Your task to perform on an android device: open sync settings in chrome Image 0: 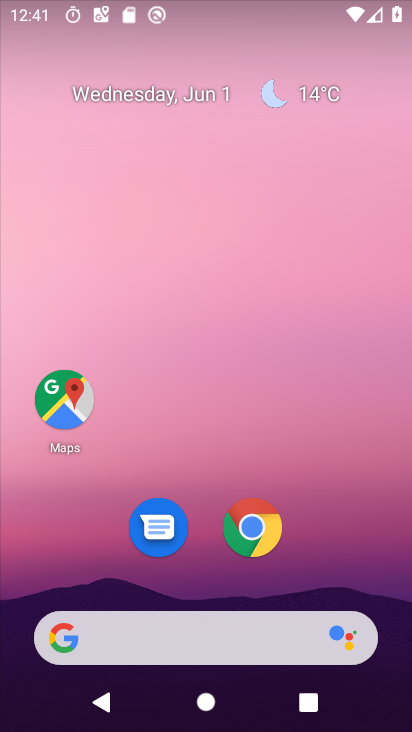
Step 0: click (257, 535)
Your task to perform on an android device: open sync settings in chrome Image 1: 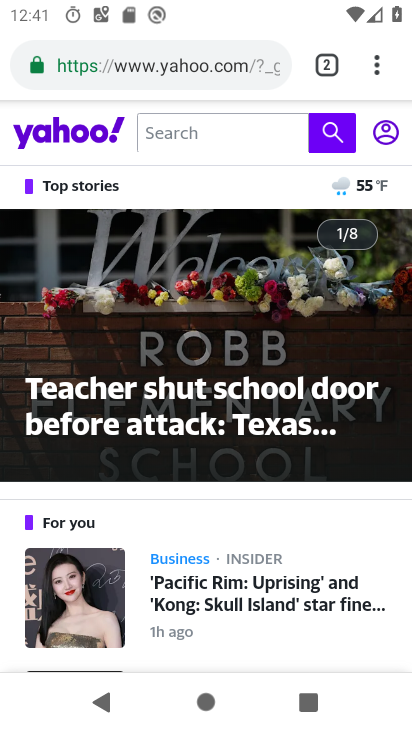
Step 1: click (376, 67)
Your task to perform on an android device: open sync settings in chrome Image 2: 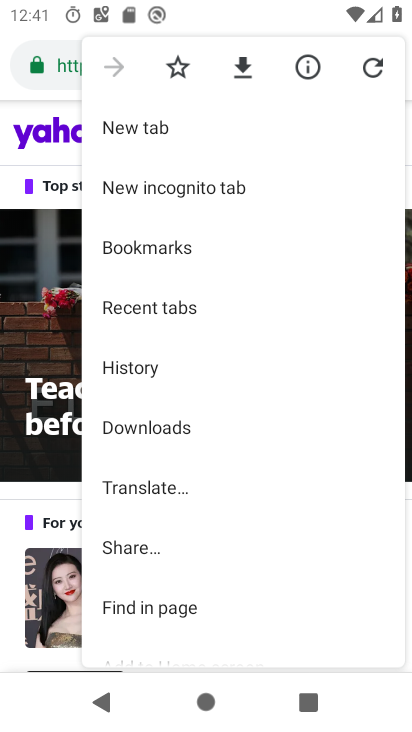
Step 2: drag from (245, 614) to (246, 225)
Your task to perform on an android device: open sync settings in chrome Image 3: 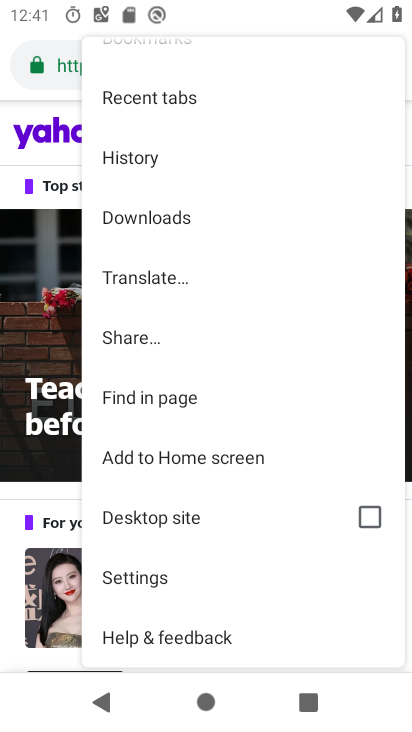
Step 3: click (124, 579)
Your task to perform on an android device: open sync settings in chrome Image 4: 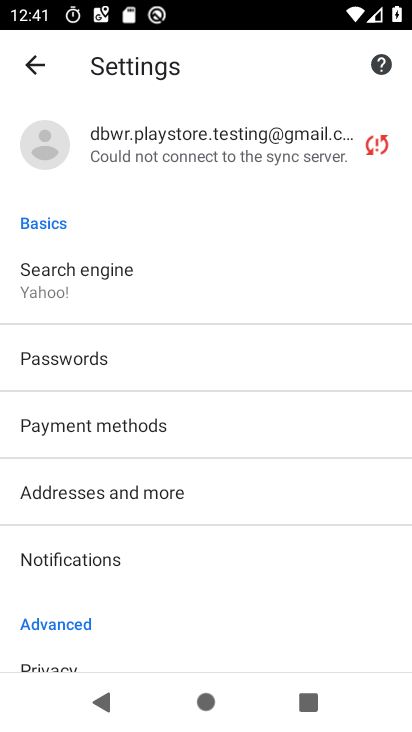
Step 4: drag from (220, 560) to (205, 272)
Your task to perform on an android device: open sync settings in chrome Image 5: 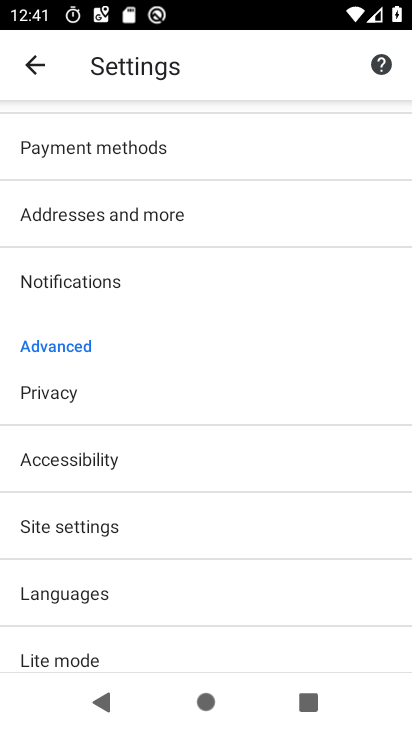
Step 5: drag from (201, 202) to (217, 610)
Your task to perform on an android device: open sync settings in chrome Image 6: 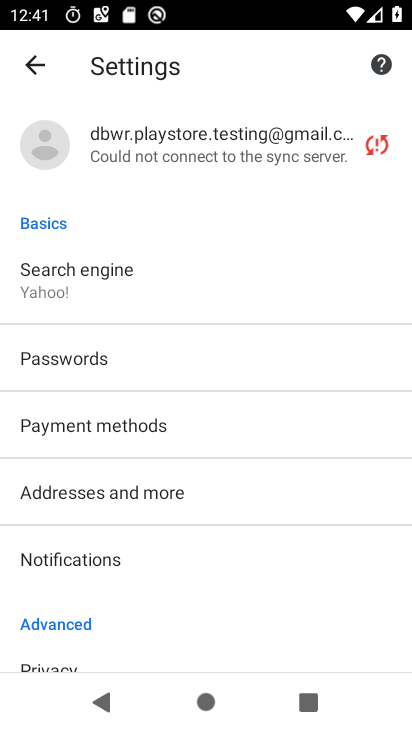
Step 6: click (169, 166)
Your task to perform on an android device: open sync settings in chrome Image 7: 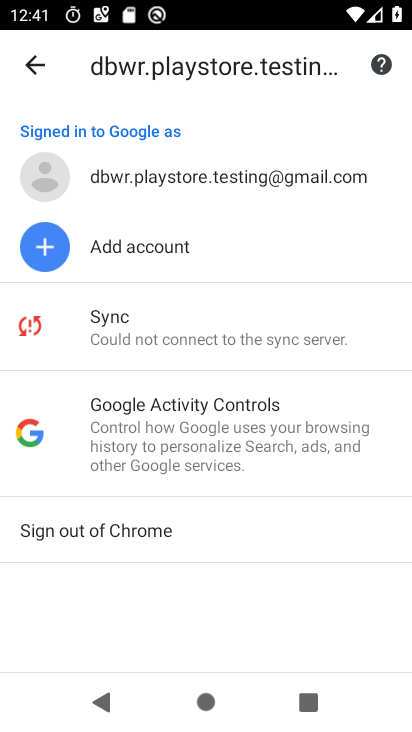
Step 7: click (107, 328)
Your task to perform on an android device: open sync settings in chrome Image 8: 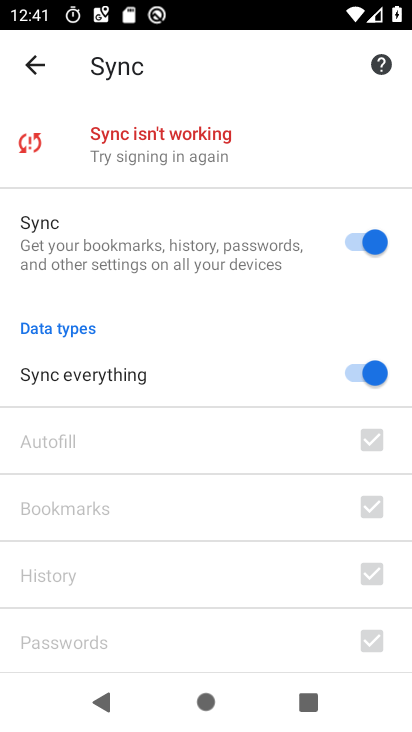
Step 8: task complete